Your task to perform on an android device: toggle notification dots Image 0: 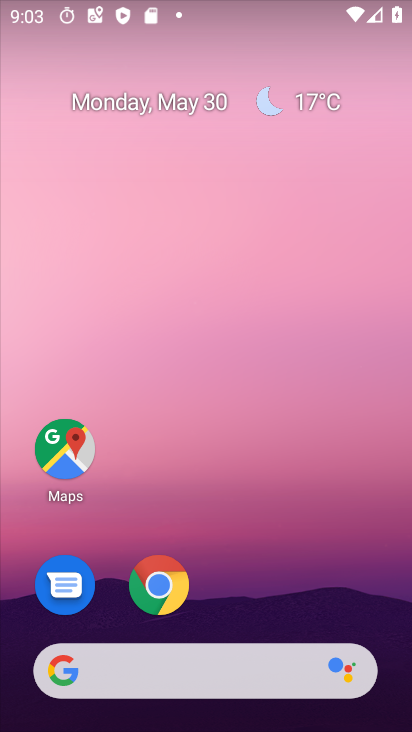
Step 0: click (262, 149)
Your task to perform on an android device: toggle notification dots Image 1: 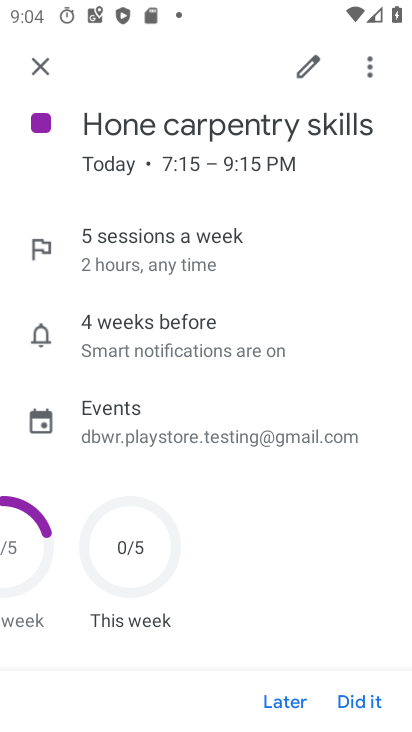
Step 1: drag from (274, 623) to (232, 292)
Your task to perform on an android device: toggle notification dots Image 2: 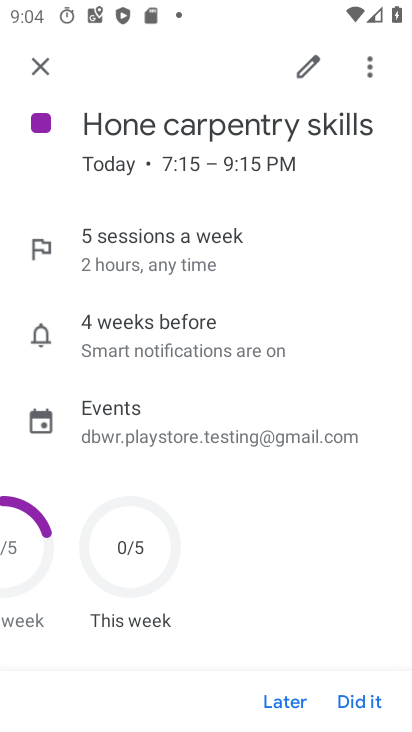
Step 2: press home button
Your task to perform on an android device: toggle notification dots Image 3: 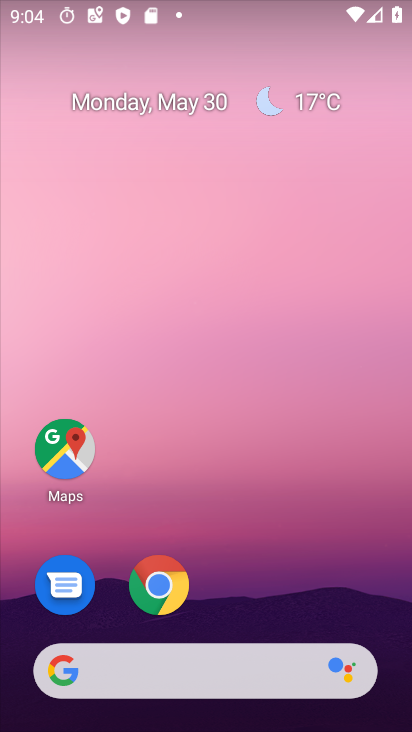
Step 3: drag from (146, 553) to (180, 140)
Your task to perform on an android device: toggle notification dots Image 4: 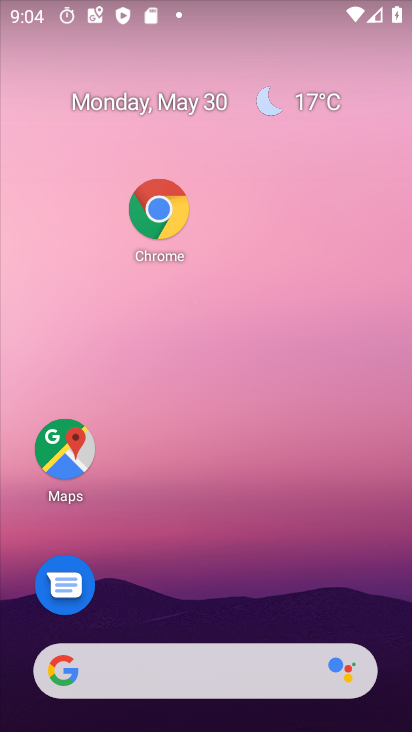
Step 4: drag from (215, 375) to (280, 162)
Your task to perform on an android device: toggle notification dots Image 5: 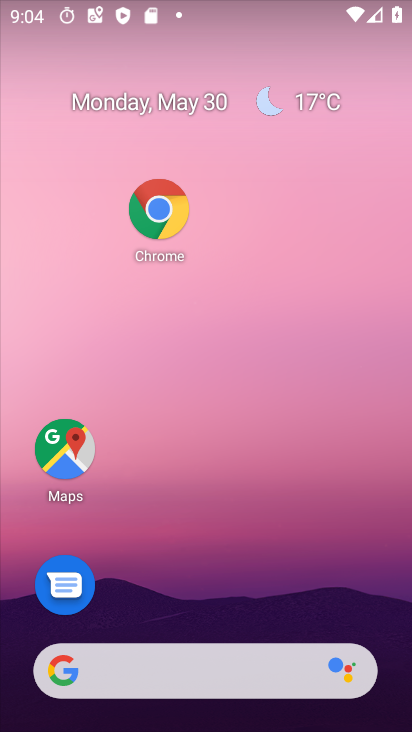
Step 5: drag from (214, 581) to (278, 11)
Your task to perform on an android device: toggle notification dots Image 6: 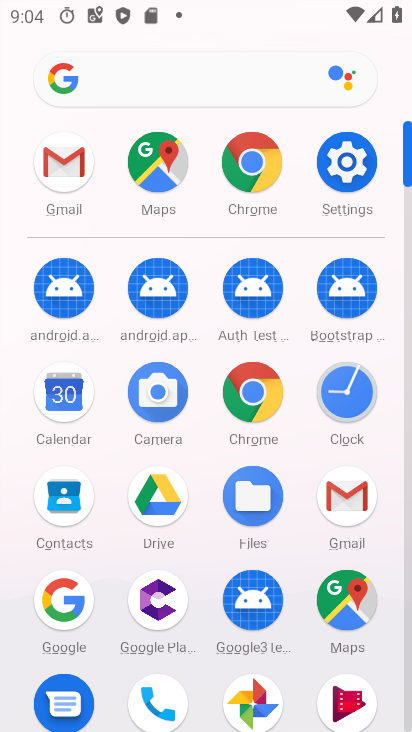
Step 6: click (345, 148)
Your task to perform on an android device: toggle notification dots Image 7: 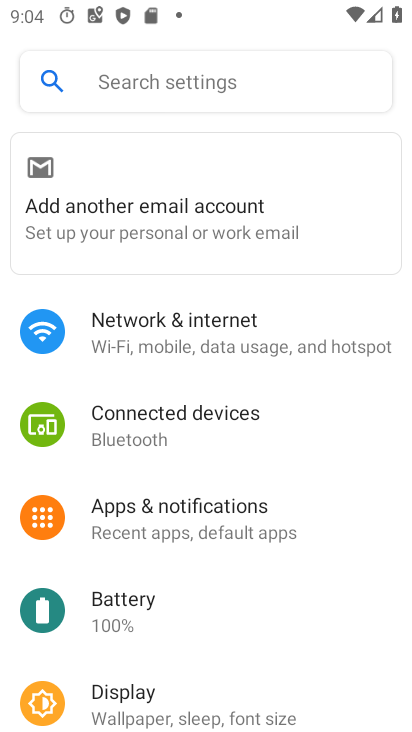
Step 7: drag from (242, 376) to (266, 142)
Your task to perform on an android device: toggle notification dots Image 8: 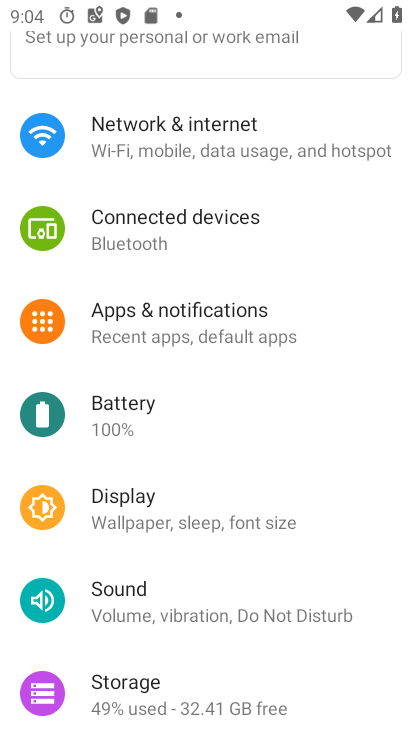
Step 8: click (180, 326)
Your task to perform on an android device: toggle notification dots Image 9: 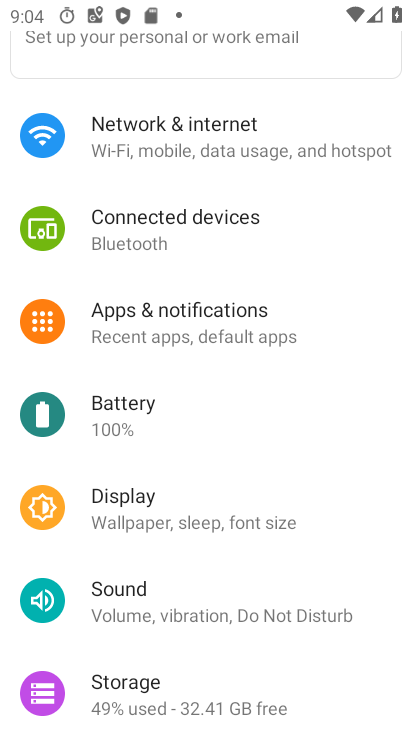
Step 9: click (180, 326)
Your task to perform on an android device: toggle notification dots Image 10: 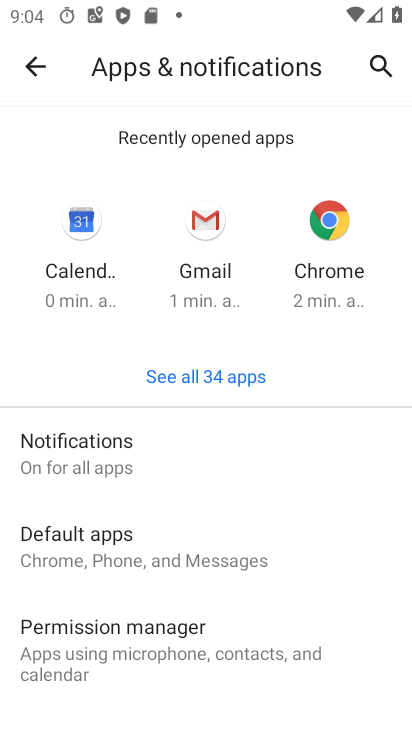
Step 10: click (121, 426)
Your task to perform on an android device: toggle notification dots Image 11: 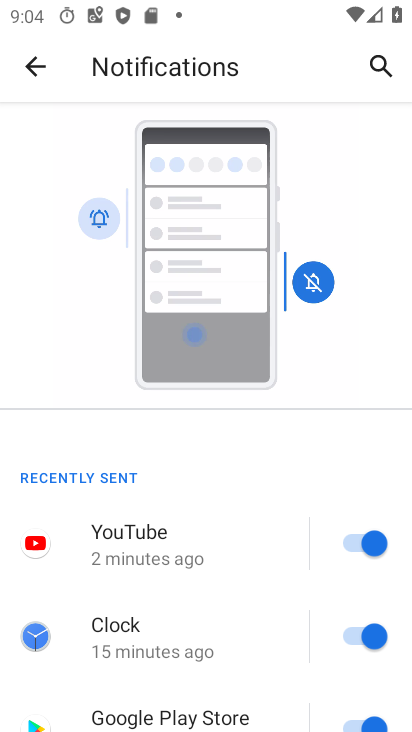
Step 11: drag from (249, 447) to (311, 175)
Your task to perform on an android device: toggle notification dots Image 12: 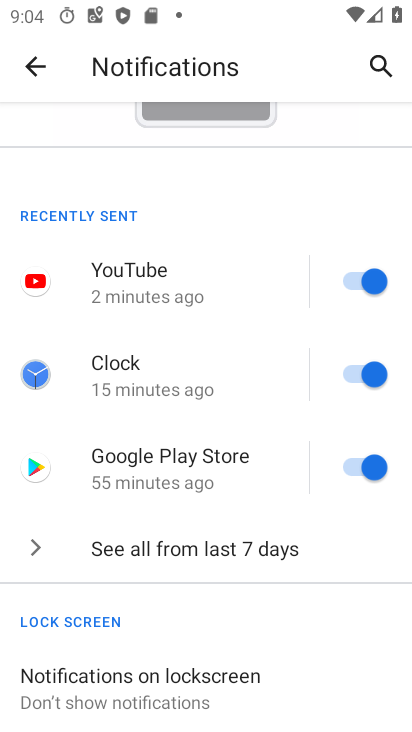
Step 12: drag from (347, 410) to (406, 114)
Your task to perform on an android device: toggle notification dots Image 13: 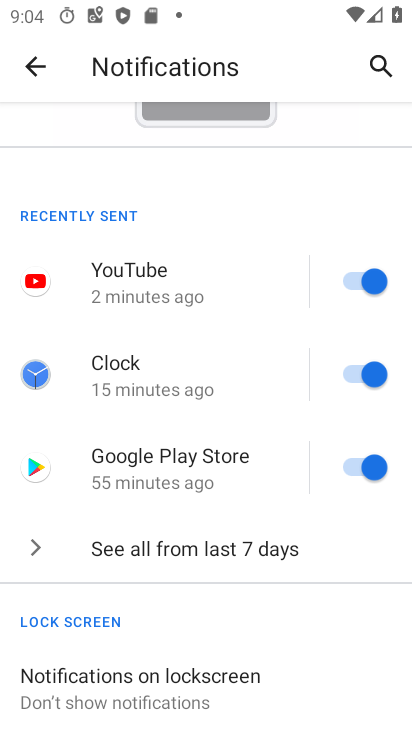
Step 13: drag from (222, 624) to (316, 177)
Your task to perform on an android device: toggle notification dots Image 14: 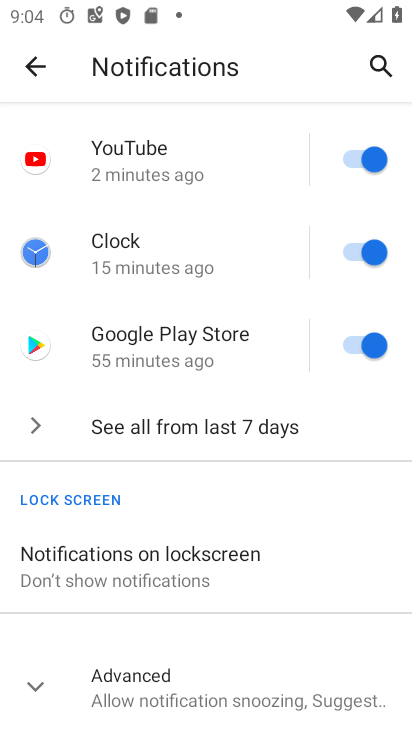
Step 14: click (196, 715)
Your task to perform on an android device: toggle notification dots Image 15: 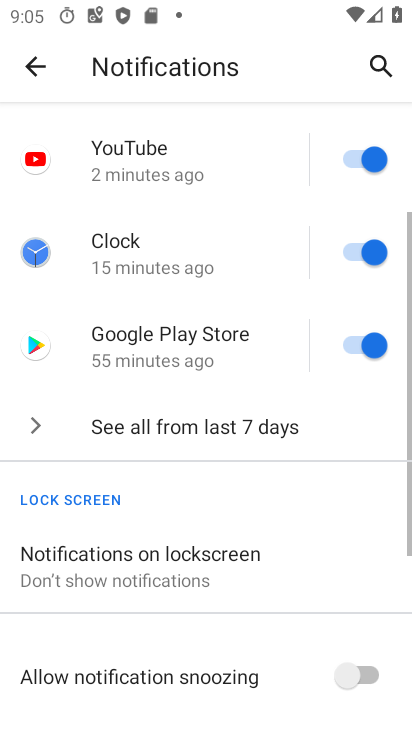
Step 15: drag from (208, 623) to (311, 200)
Your task to perform on an android device: toggle notification dots Image 16: 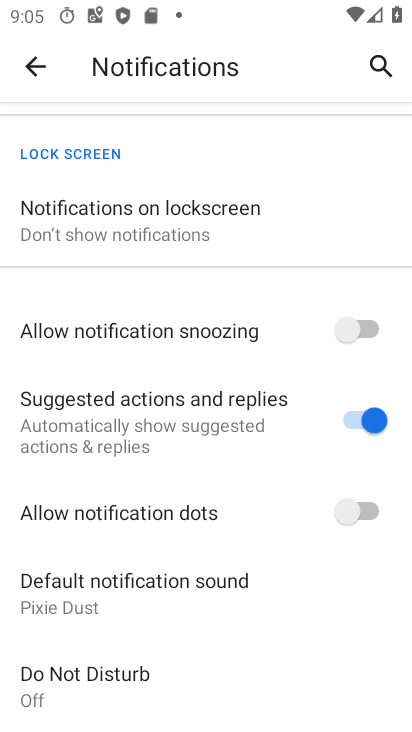
Step 16: drag from (275, 422) to (316, 268)
Your task to perform on an android device: toggle notification dots Image 17: 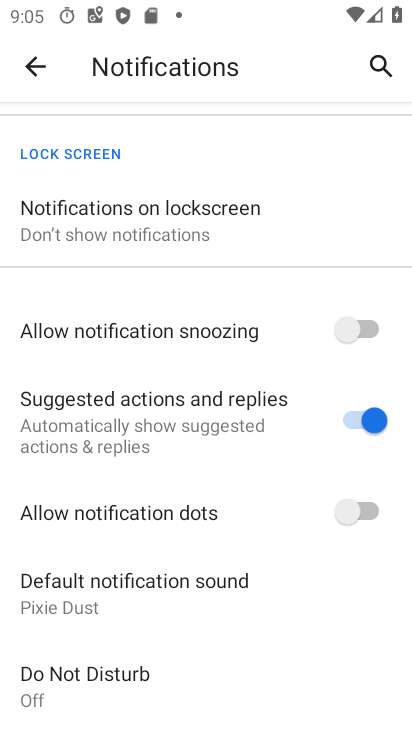
Step 17: click (342, 517)
Your task to perform on an android device: toggle notification dots Image 18: 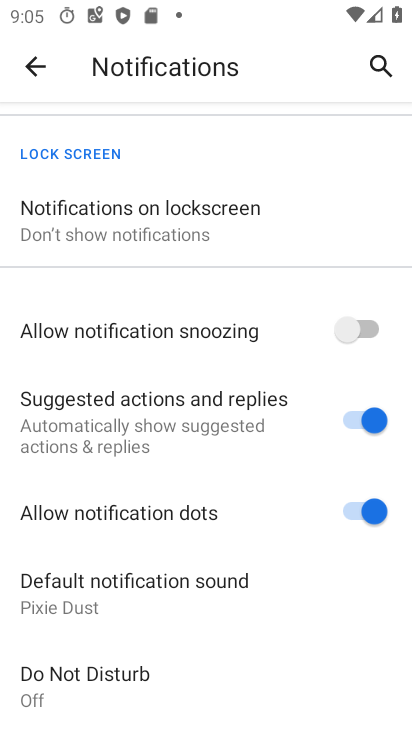
Step 18: task complete